Your task to perform on an android device: install app "Walmart Shopping & Grocery" Image 0: 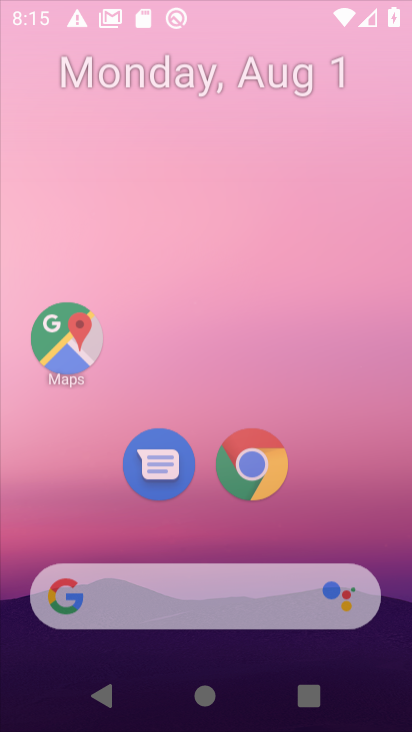
Step 0: press home button
Your task to perform on an android device: install app "Walmart Shopping & Grocery" Image 1: 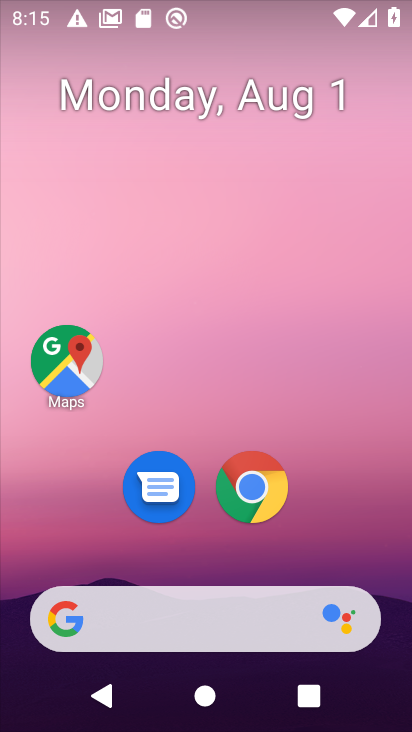
Step 1: drag from (371, 491) to (334, 46)
Your task to perform on an android device: install app "Walmart Shopping & Grocery" Image 2: 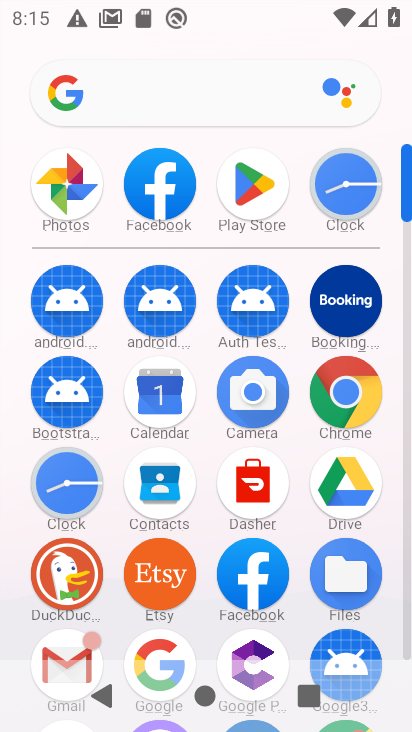
Step 2: click (247, 196)
Your task to perform on an android device: install app "Walmart Shopping & Grocery" Image 3: 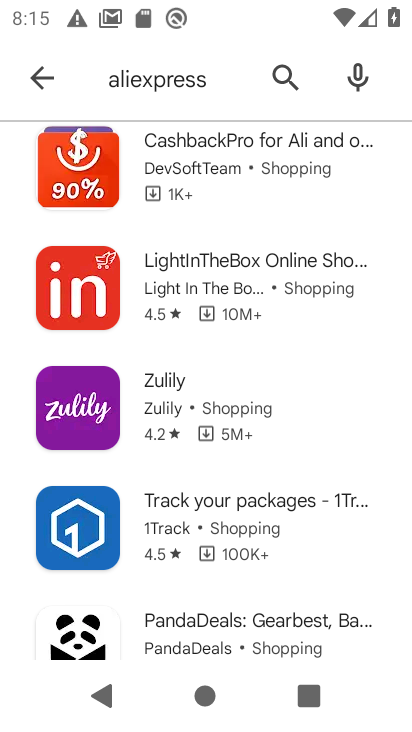
Step 3: click (282, 74)
Your task to perform on an android device: install app "Walmart Shopping & Grocery" Image 4: 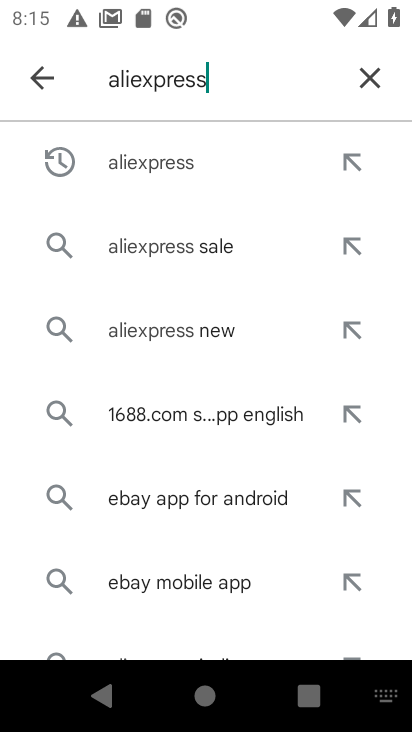
Step 4: click (375, 79)
Your task to perform on an android device: install app "Walmart Shopping & Grocery" Image 5: 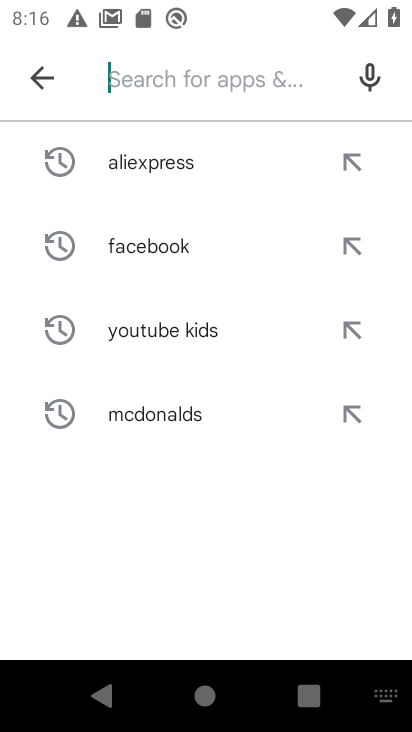
Step 5: type "walmart shopping grocery"
Your task to perform on an android device: install app "Walmart Shopping & Grocery" Image 6: 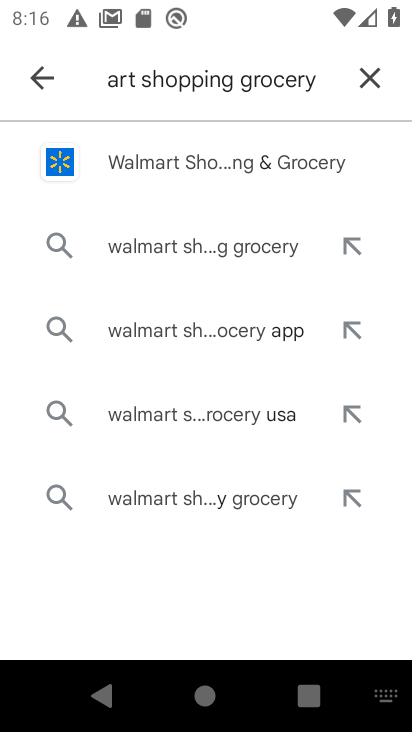
Step 6: click (287, 159)
Your task to perform on an android device: install app "Walmart Shopping & Grocery" Image 7: 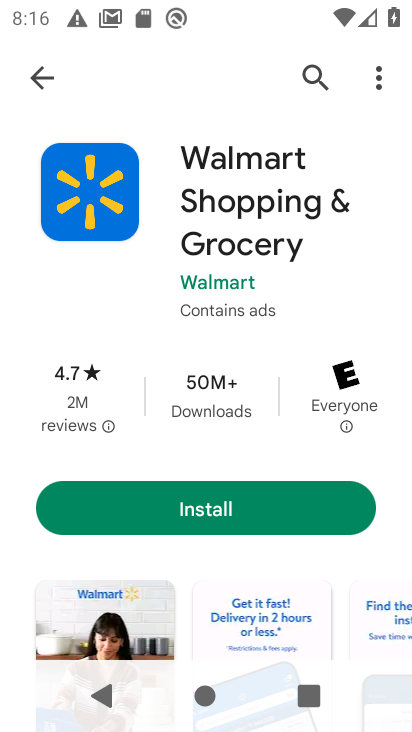
Step 7: click (265, 506)
Your task to perform on an android device: install app "Walmart Shopping & Grocery" Image 8: 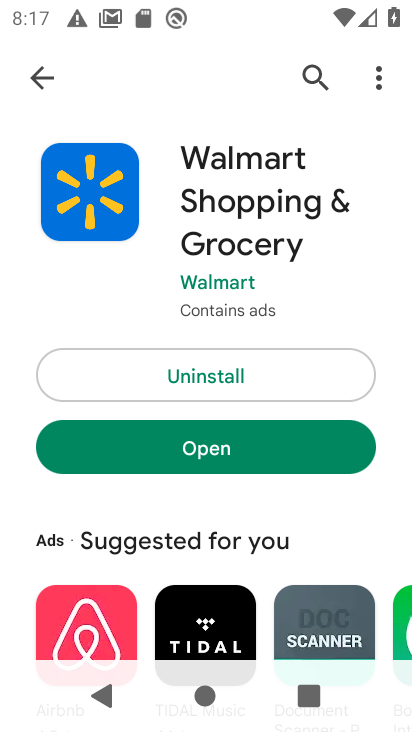
Step 8: task complete